Your task to perform on an android device: check google app version Image 0: 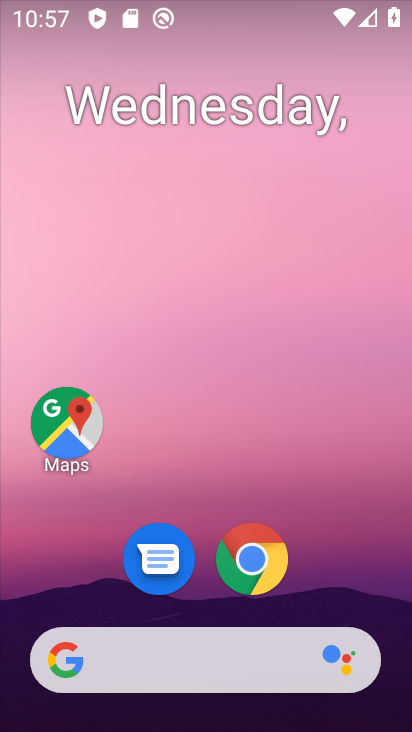
Step 0: drag from (317, 586) to (378, 96)
Your task to perform on an android device: check google app version Image 1: 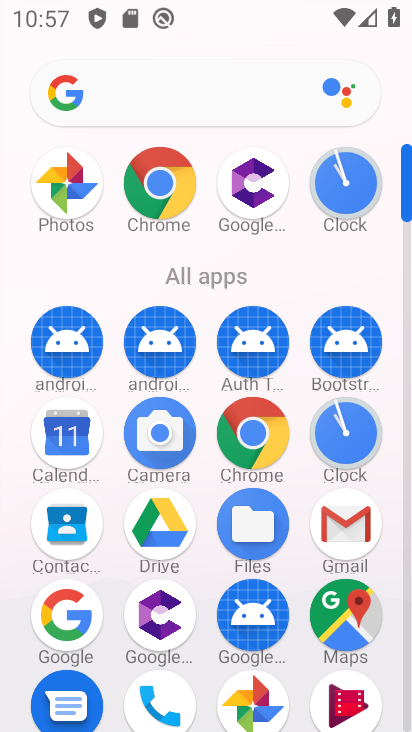
Step 1: click (69, 603)
Your task to perform on an android device: check google app version Image 2: 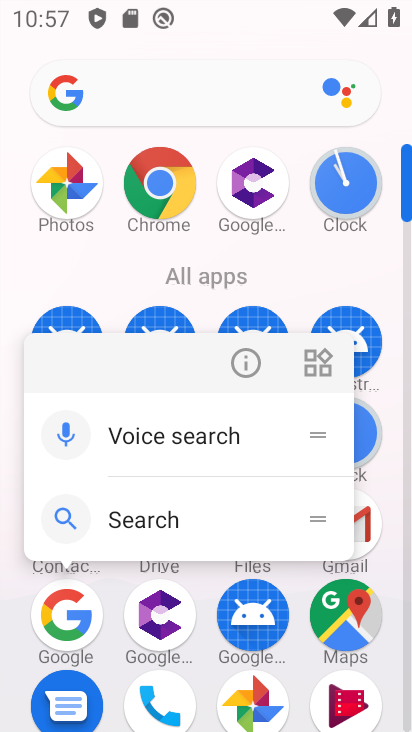
Step 2: click (246, 363)
Your task to perform on an android device: check google app version Image 3: 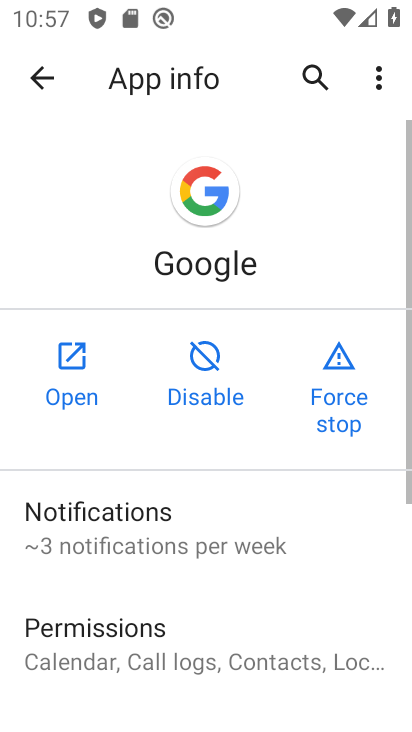
Step 3: drag from (208, 620) to (296, 179)
Your task to perform on an android device: check google app version Image 4: 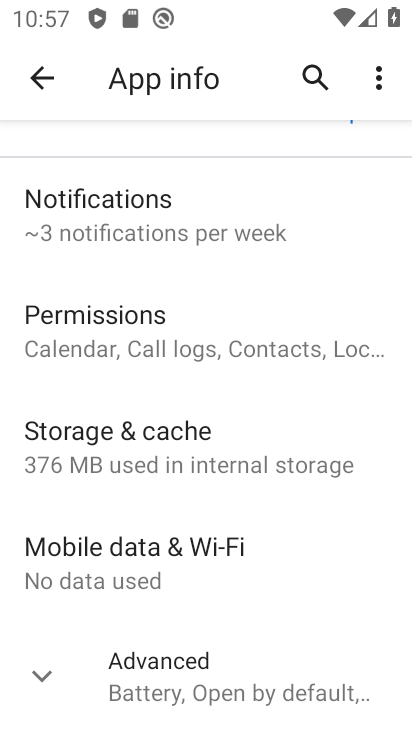
Step 4: click (183, 667)
Your task to perform on an android device: check google app version Image 5: 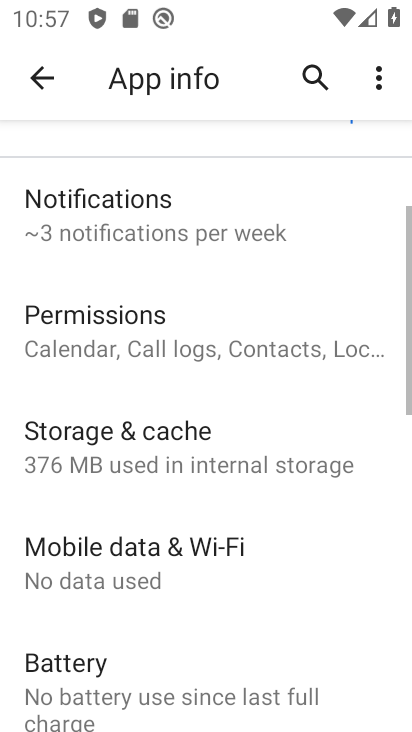
Step 5: task complete